Your task to perform on an android device: Search for vegetarian restaurants on Maps Image 0: 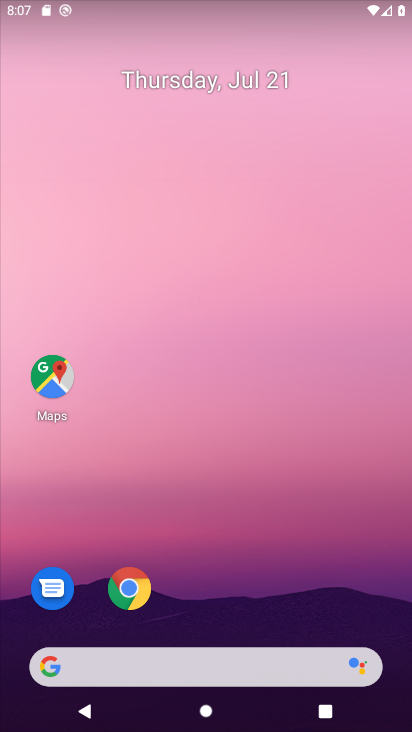
Step 0: drag from (222, 654) to (157, 210)
Your task to perform on an android device: Search for vegetarian restaurants on Maps Image 1: 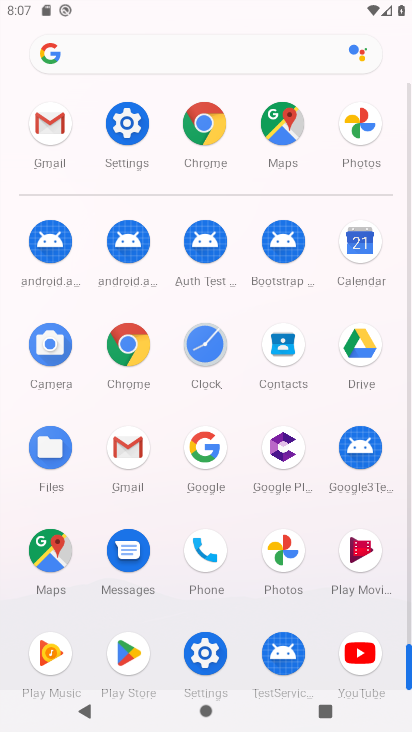
Step 1: click (55, 558)
Your task to perform on an android device: Search for vegetarian restaurants on Maps Image 2: 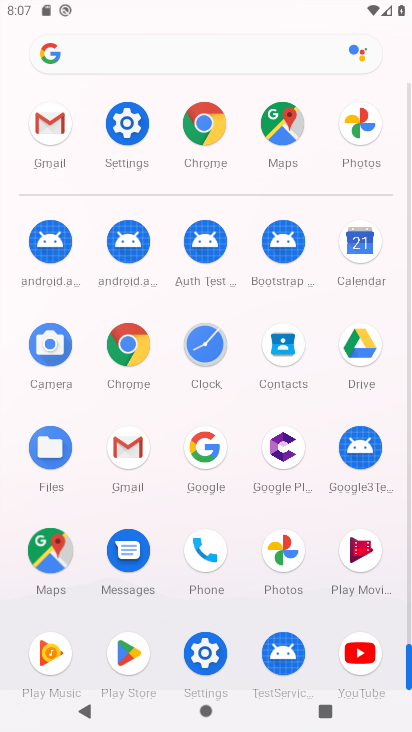
Step 2: click (53, 557)
Your task to perform on an android device: Search for vegetarian restaurants on Maps Image 3: 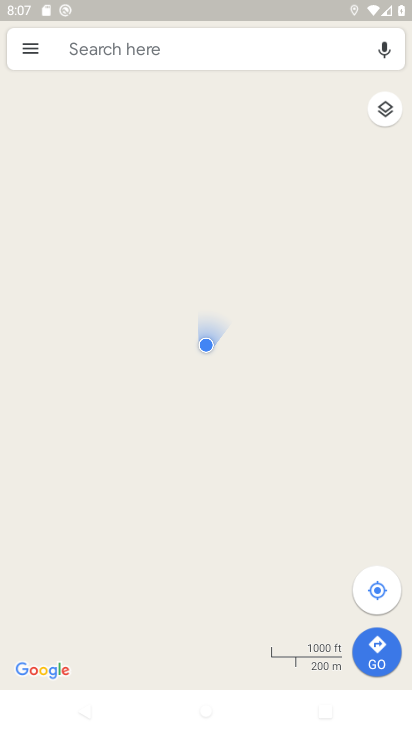
Step 3: click (82, 42)
Your task to perform on an android device: Search for vegetarian restaurants on Maps Image 4: 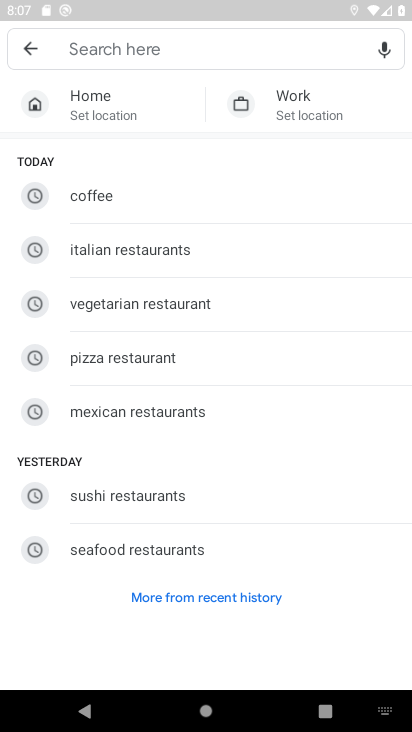
Step 4: click (119, 303)
Your task to perform on an android device: Search for vegetarian restaurants on Maps Image 5: 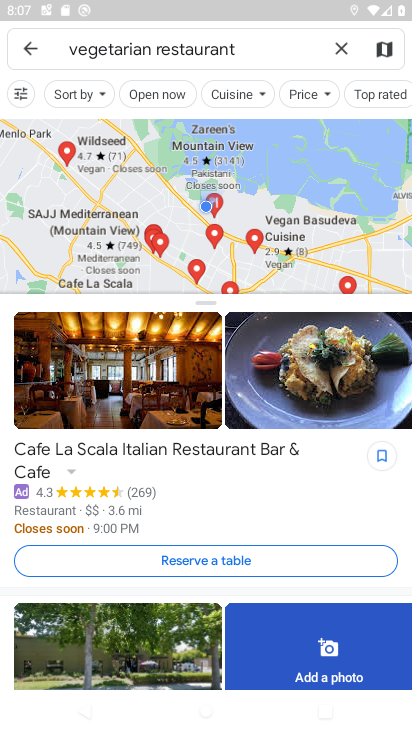
Step 5: task complete